Your task to perform on an android device: add a contact Image 0: 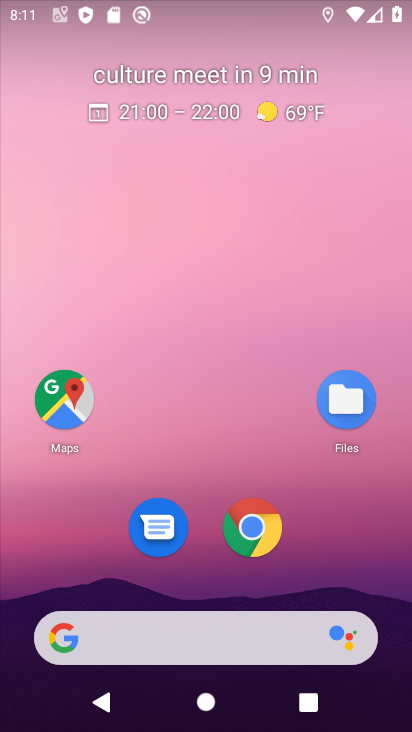
Step 0: drag from (211, 567) to (175, 100)
Your task to perform on an android device: add a contact Image 1: 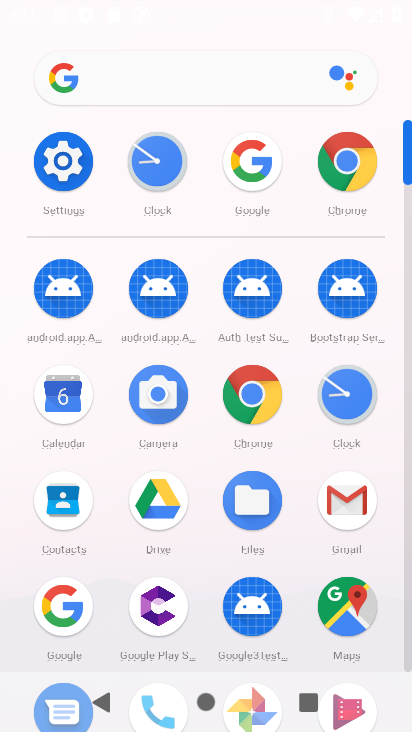
Step 1: click (66, 496)
Your task to perform on an android device: add a contact Image 2: 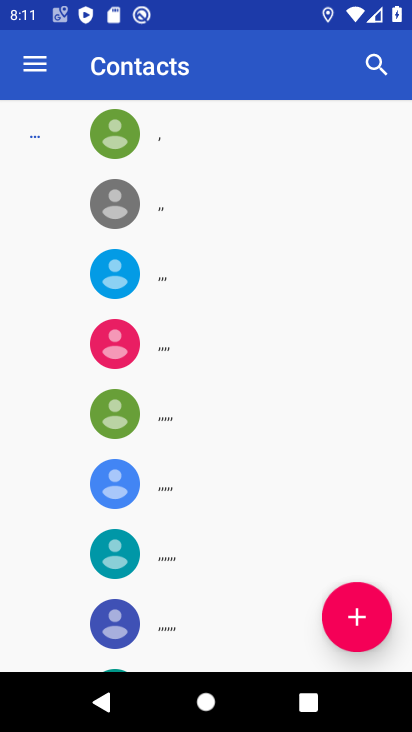
Step 2: click (363, 610)
Your task to perform on an android device: add a contact Image 3: 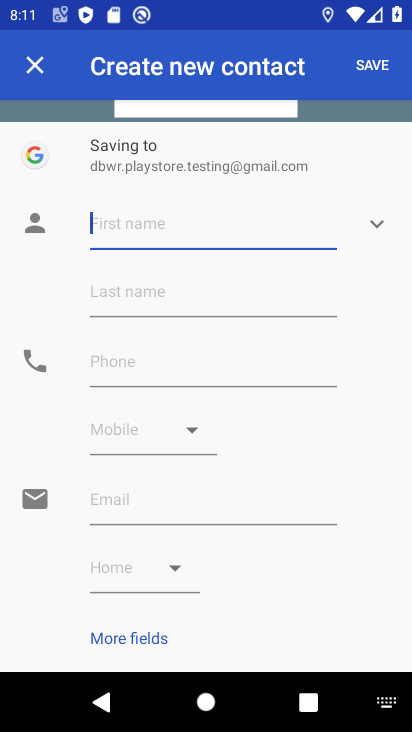
Step 3: type "teyh"
Your task to perform on an android device: add a contact Image 4: 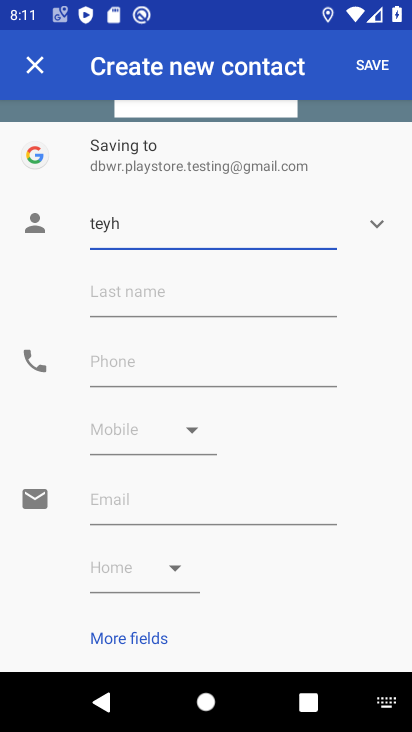
Step 4: click (368, 75)
Your task to perform on an android device: add a contact Image 5: 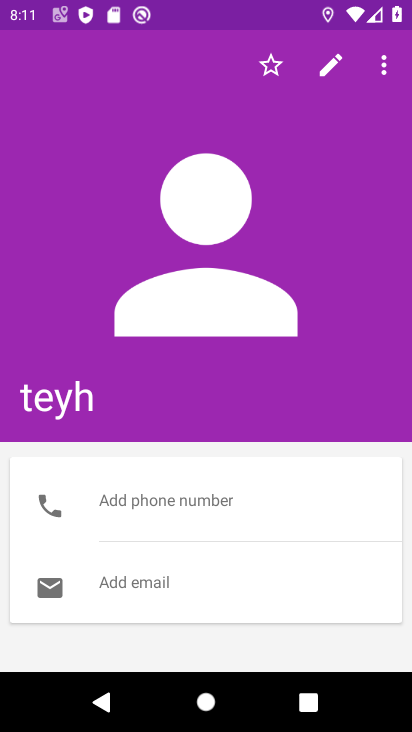
Step 5: task complete